Your task to perform on an android device: toggle priority inbox in the gmail app Image 0: 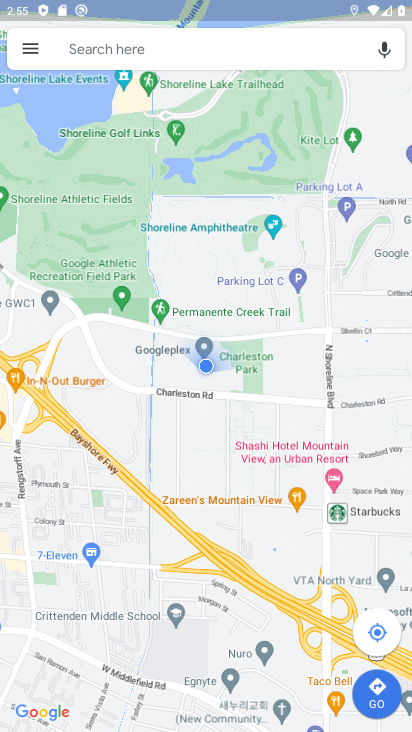
Step 0: press home button
Your task to perform on an android device: toggle priority inbox in the gmail app Image 1: 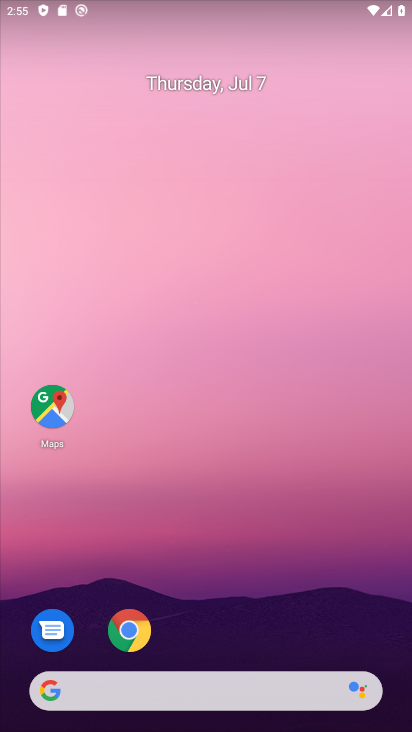
Step 1: drag from (193, 525) to (209, 28)
Your task to perform on an android device: toggle priority inbox in the gmail app Image 2: 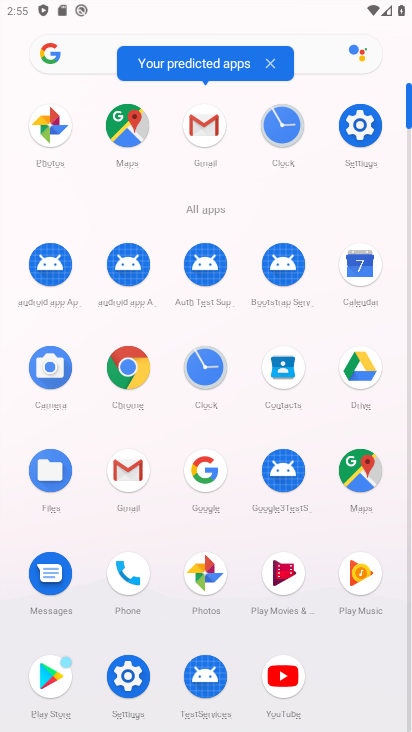
Step 2: click (135, 480)
Your task to perform on an android device: toggle priority inbox in the gmail app Image 3: 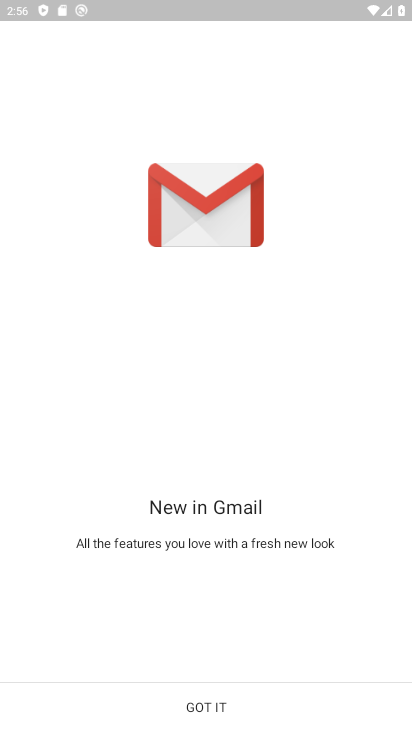
Step 3: click (245, 699)
Your task to perform on an android device: toggle priority inbox in the gmail app Image 4: 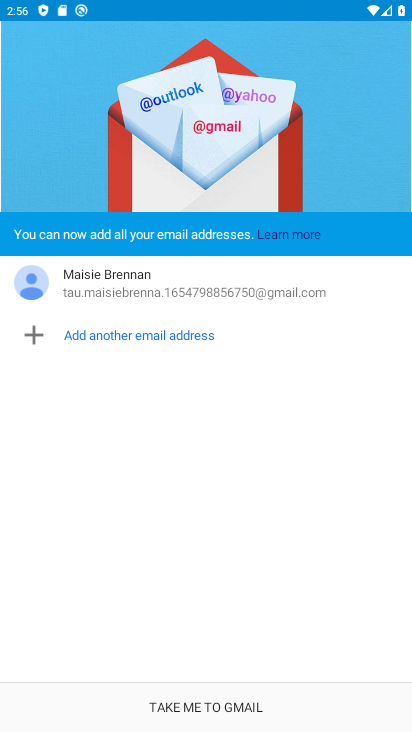
Step 4: click (233, 705)
Your task to perform on an android device: toggle priority inbox in the gmail app Image 5: 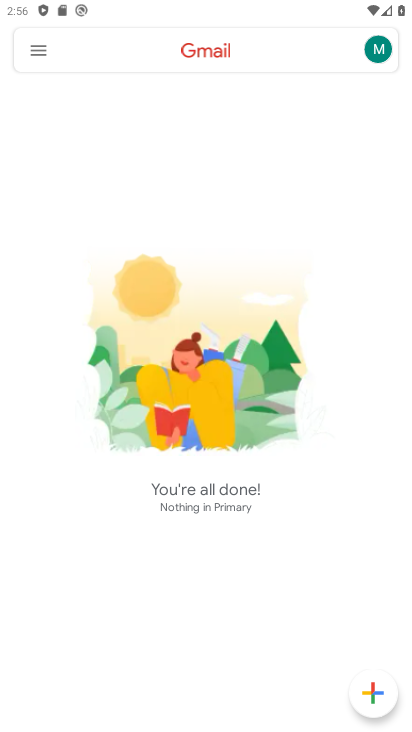
Step 5: click (36, 54)
Your task to perform on an android device: toggle priority inbox in the gmail app Image 6: 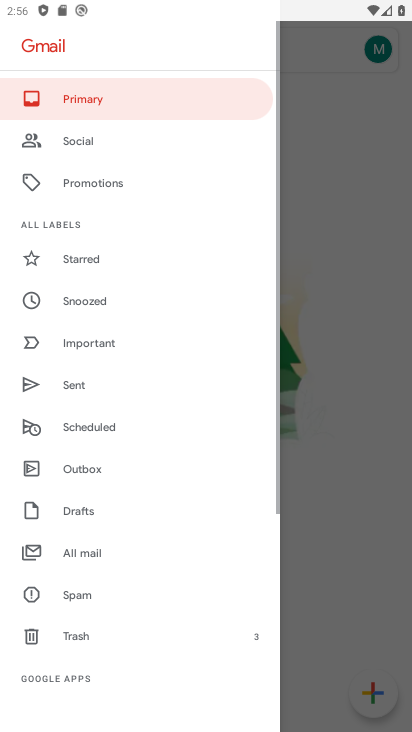
Step 6: drag from (117, 579) to (131, 0)
Your task to perform on an android device: toggle priority inbox in the gmail app Image 7: 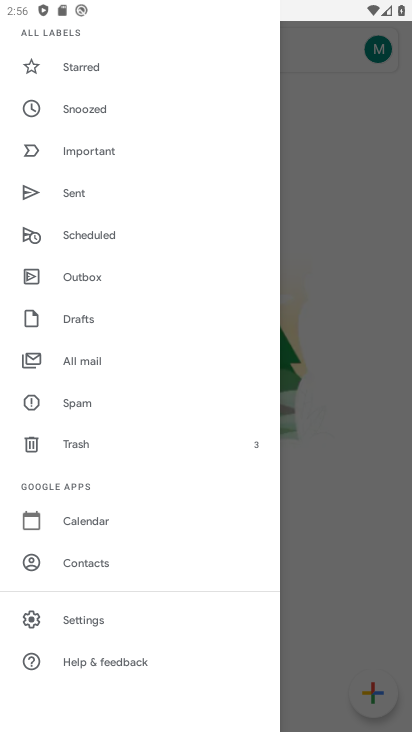
Step 7: click (90, 624)
Your task to perform on an android device: toggle priority inbox in the gmail app Image 8: 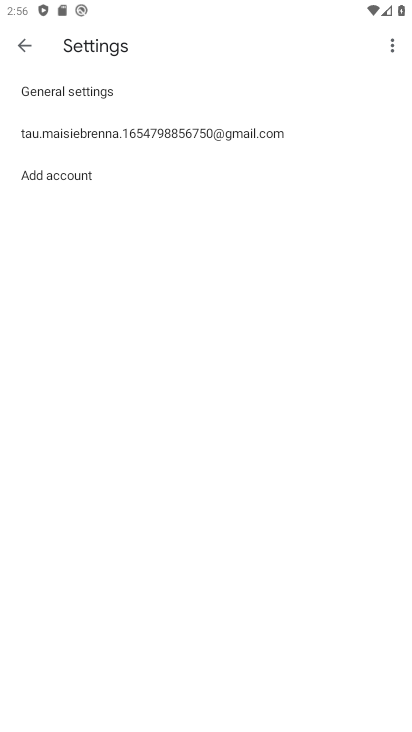
Step 8: click (91, 139)
Your task to perform on an android device: toggle priority inbox in the gmail app Image 9: 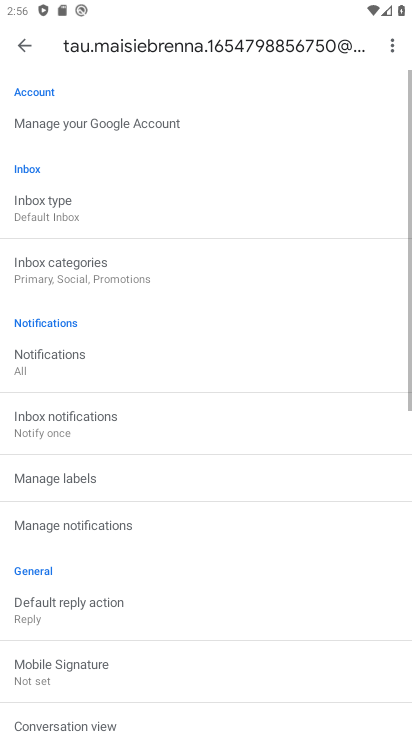
Step 9: click (78, 212)
Your task to perform on an android device: toggle priority inbox in the gmail app Image 10: 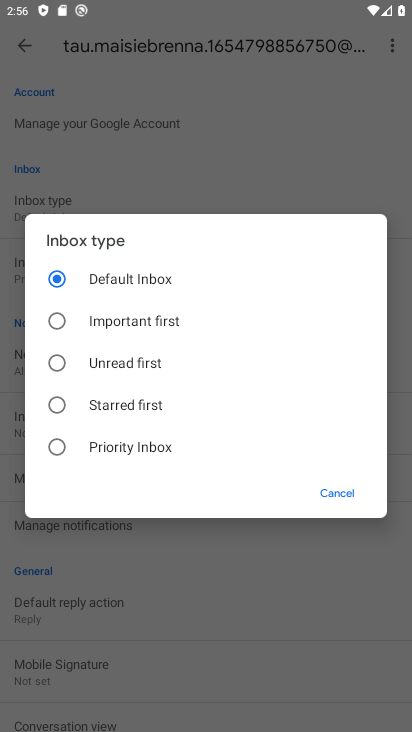
Step 10: click (108, 448)
Your task to perform on an android device: toggle priority inbox in the gmail app Image 11: 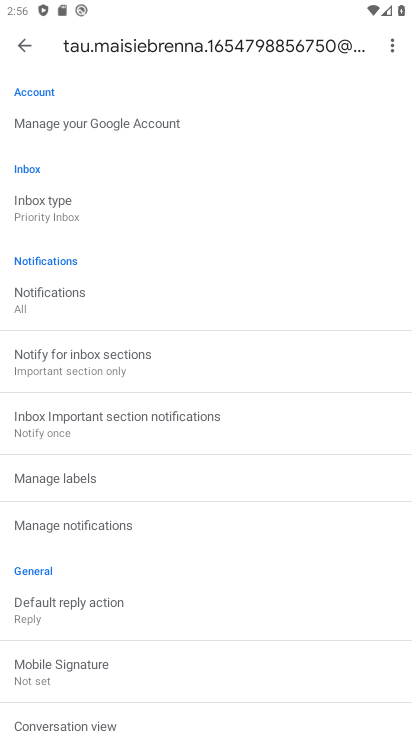
Step 11: task complete